Your task to perform on an android device: Search for seafood restaurants on Google Maps Image 0: 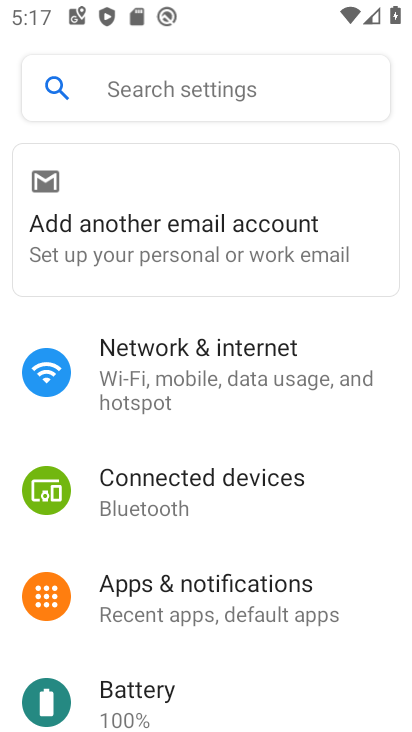
Step 0: press home button
Your task to perform on an android device: Search for seafood restaurants on Google Maps Image 1: 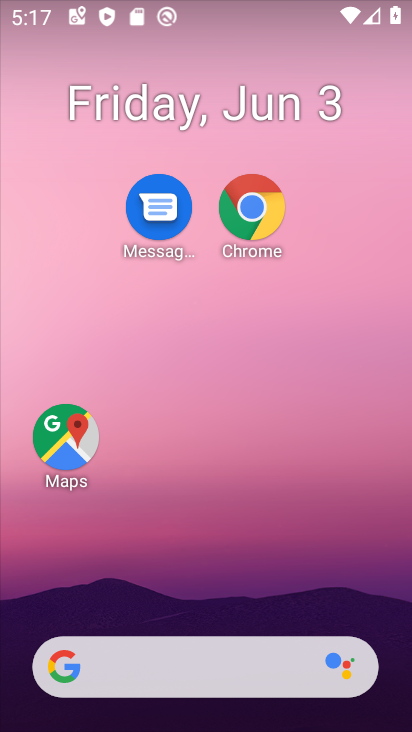
Step 1: click (55, 438)
Your task to perform on an android device: Search for seafood restaurants on Google Maps Image 2: 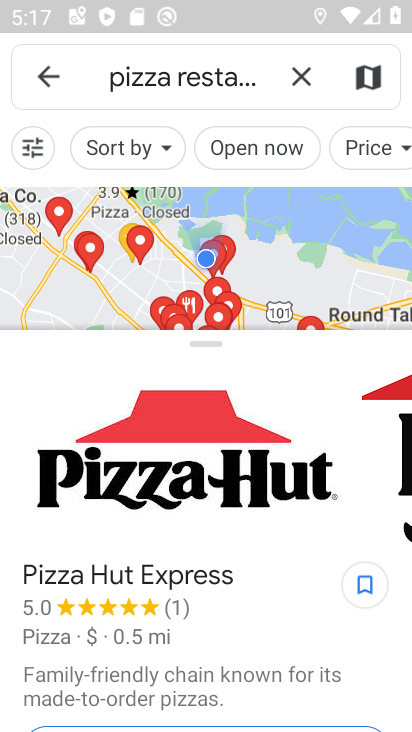
Step 2: click (291, 86)
Your task to perform on an android device: Search for seafood restaurants on Google Maps Image 3: 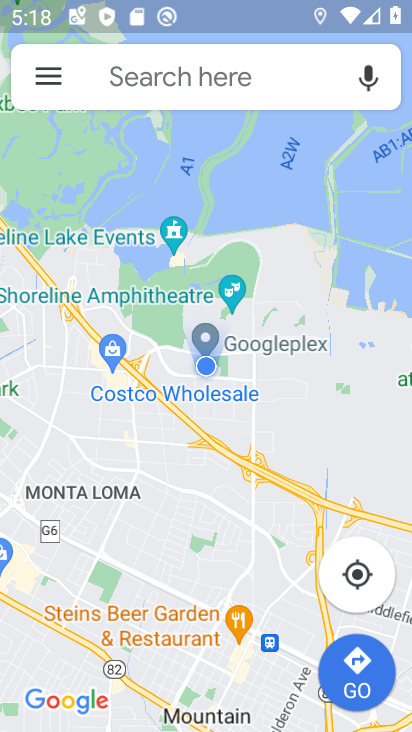
Step 3: click (216, 70)
Your task to perform on an android device: Search for seafood restaurants on Google Maps Image 4: 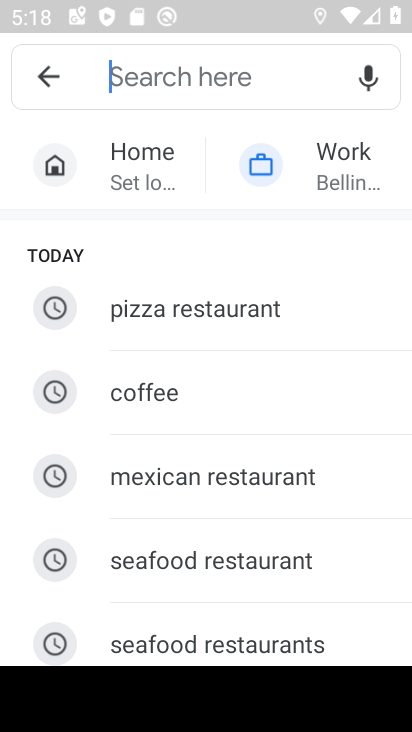
Step 4: click (222, 570)
Your task to perform on an android device: Search for seafood restaurants on Google Maps Image 5: 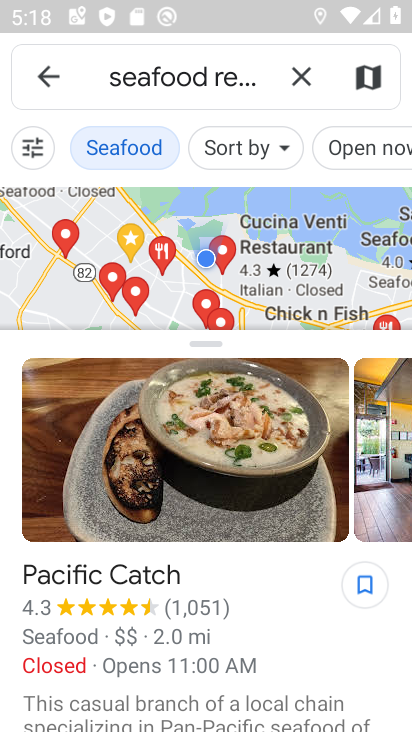
Step 5: task complete